Your task to perform on an android device: turn off wifi Image 0: 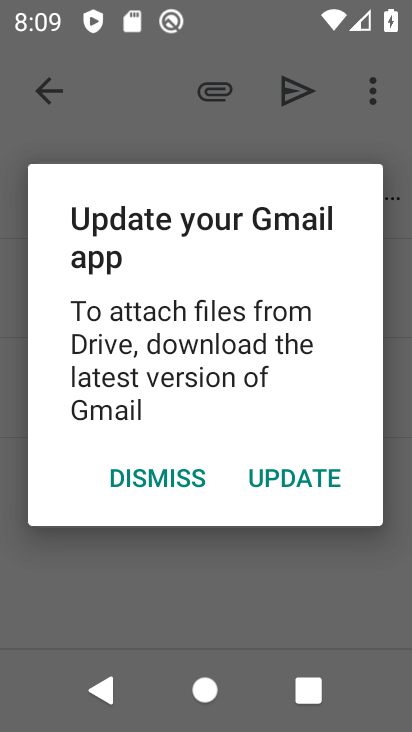
Step 0: press home button
Your task to perform on an android device: turn off wifi Image 1: 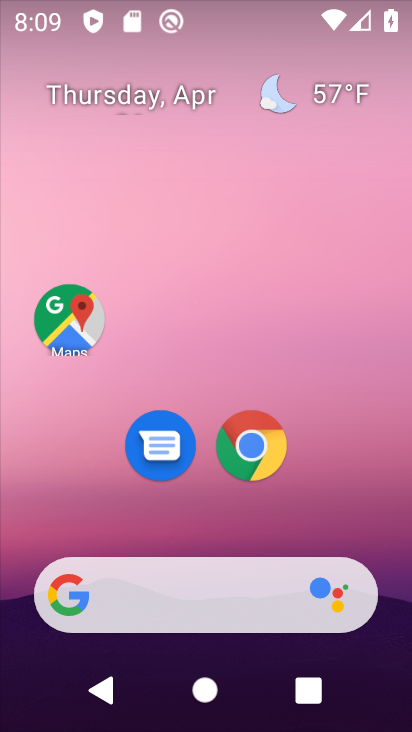
Step 1: drag from (350, 499) to (269, 35)
Your task to perform on an android device: turn off wifi Image 2: 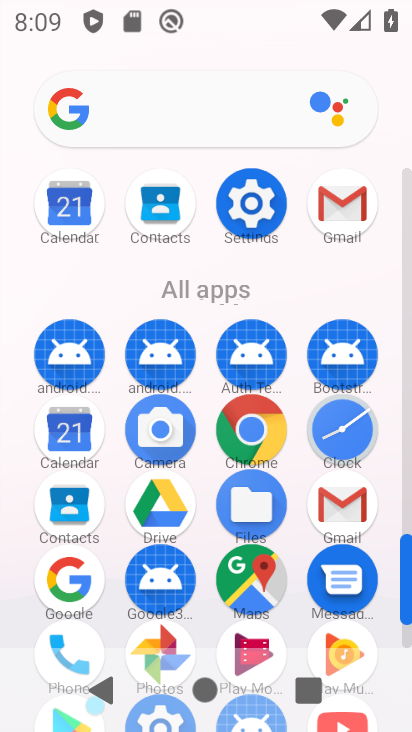
Step 2: click (246, 228)
Your task to perform on an android device: turn off wifi Image 3: 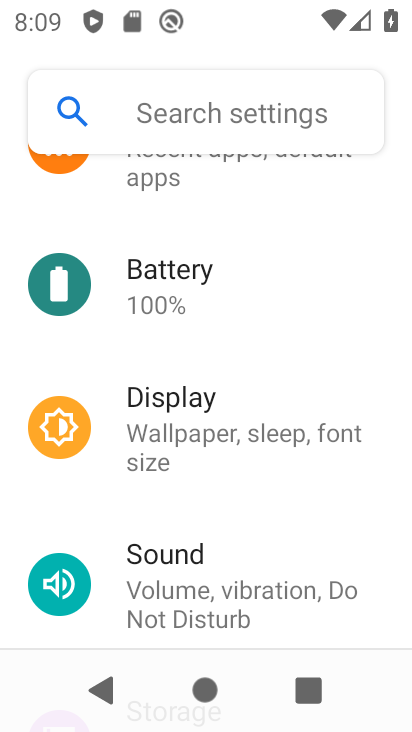
Step 3: drag from (356, 216) to (338, 652)
Your task to perform on an android device: turn off wifi Image 4: 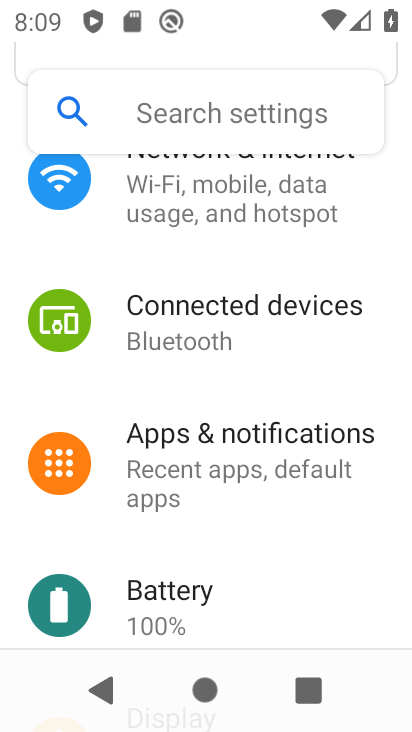
Step 4: drag from (372, 235) to (389, 591)
Your task to perform on an android device: turn off wifi Image 5: 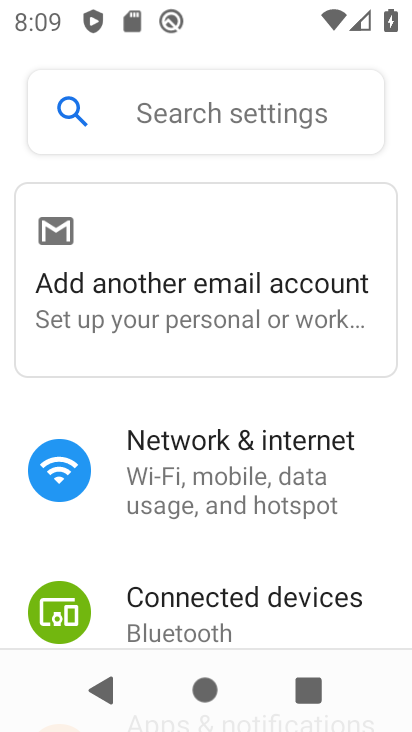
Step 5: click (184, 475)
Your task to perform on an android device: turn off wifi Image 6: 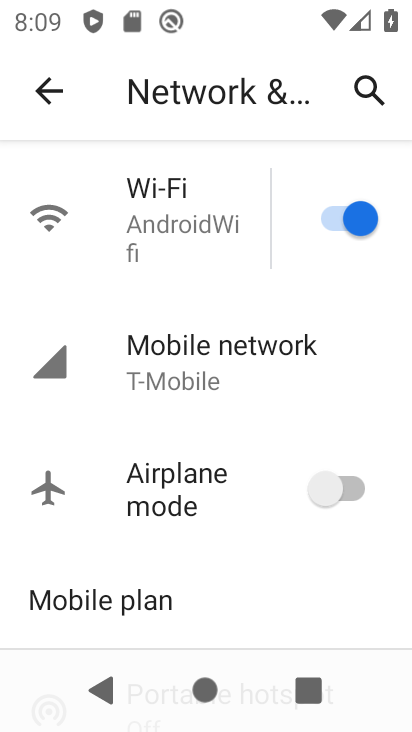
Step 6: click (355, 228)
Your task to perform on an android device: turn off wifi Image 7: 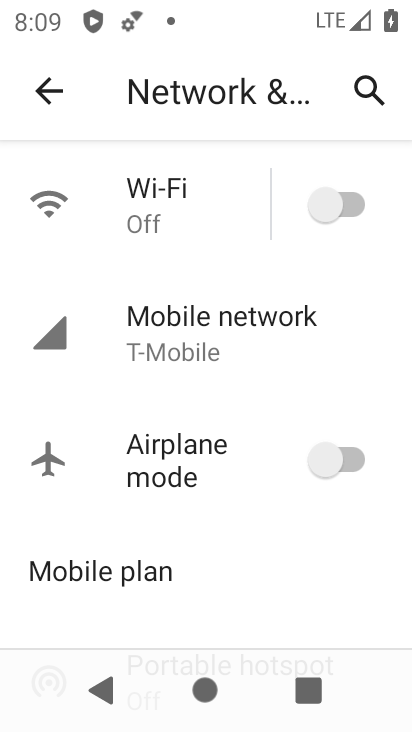
Step 7: task complete